Your task to perform on an android device: add a contact Image 0: 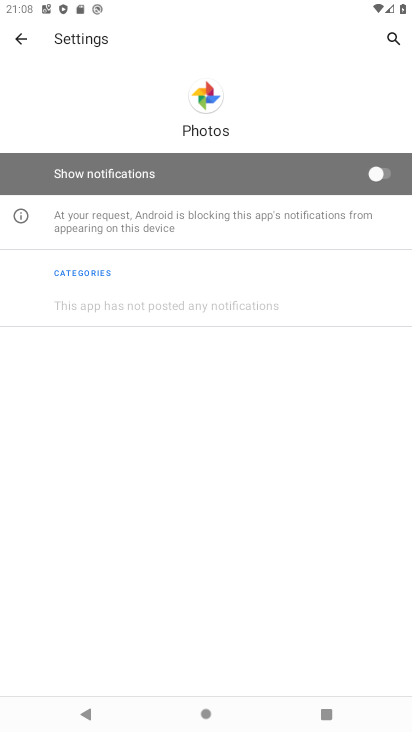
Step 0: press home button
Your task to perform on an android device: add a contact Image 1: 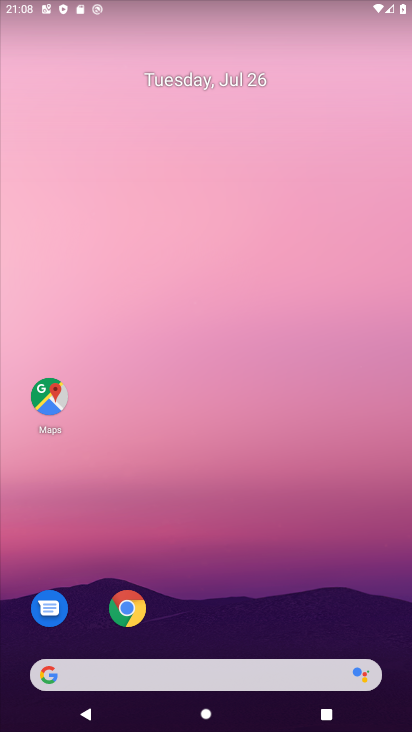
Step 1: drag from (31, 703) to (194, 106)
Your task to perform on an android device: add a contact Image 2: 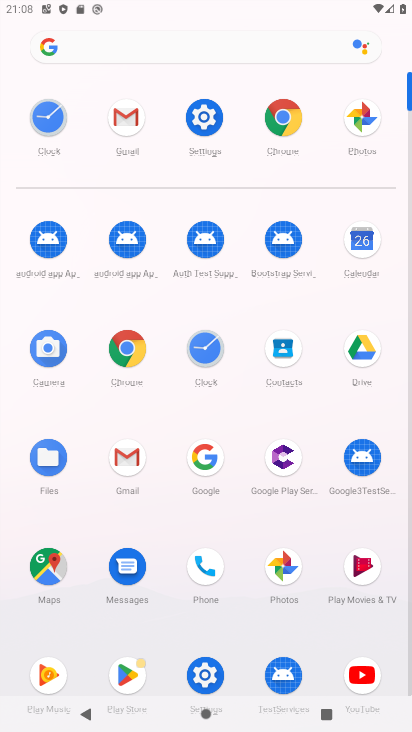
Step 2: click (201, 368)
Your task to perform on an android device: add a contact Image 3: 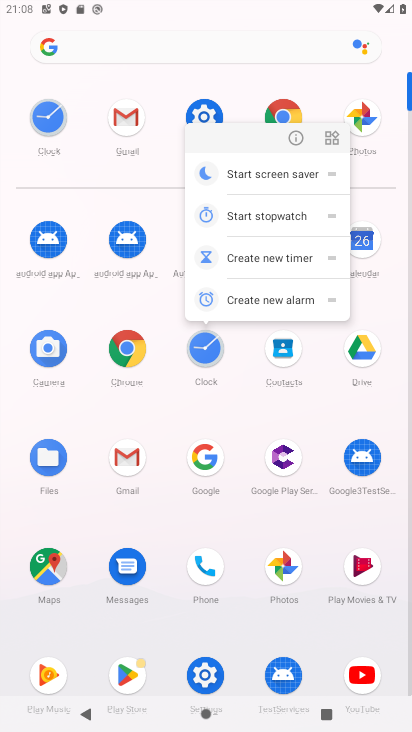
Step 3: click (212, 338)
Your task to perform on an android device: add a contact Image 4: 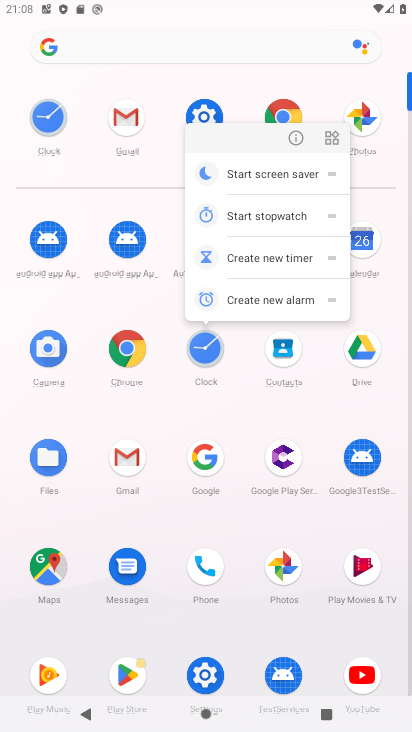
Step 4: click (211, 369)
Your task to perform on an android device: add a contact Image 5: 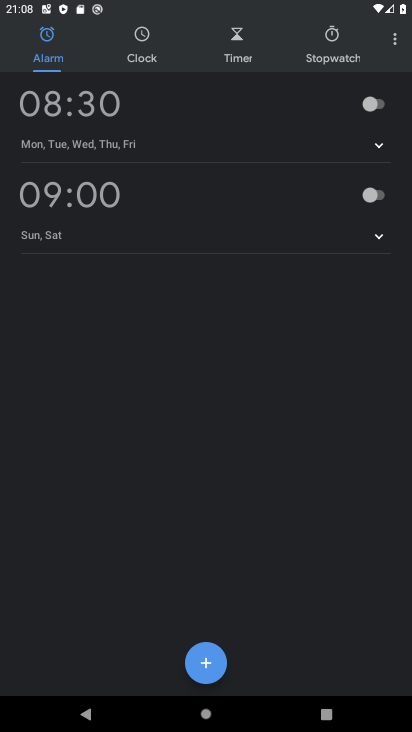
Step 5: press home button
Your task to perform on an android device: add a contact Image 6: 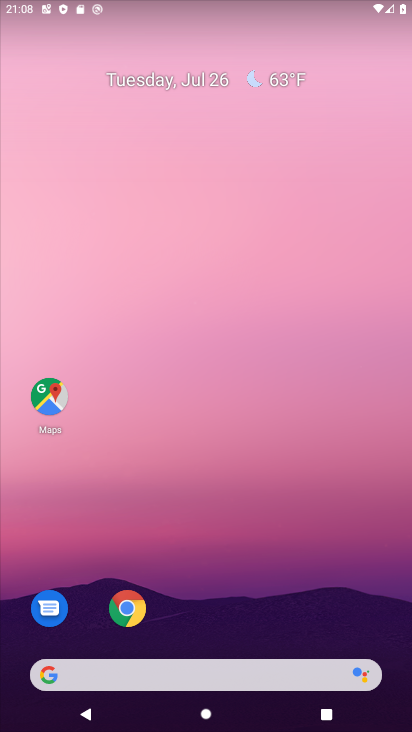
Step 6: drag from (50, 707) to (286, 110)
Your task to perform on an android device: add a contact Image 7: 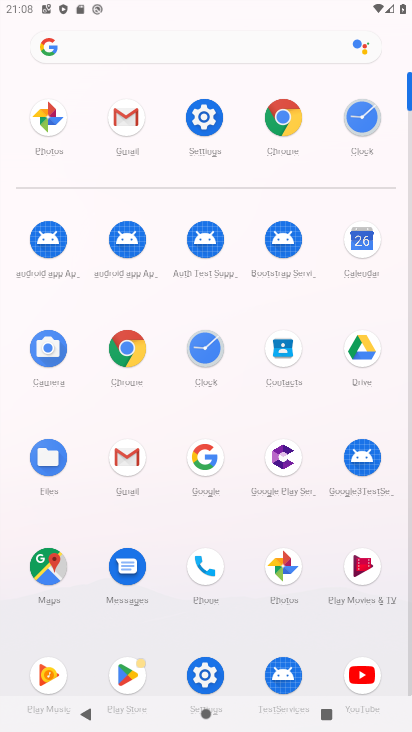
Step 7: click (280, 365)
Your task to perform on an android device: add a contact Image 8: 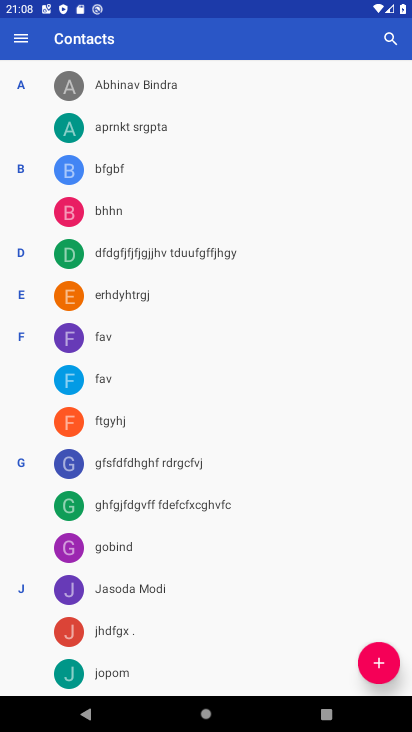
Step 8: click (378, 667)
Your task to perform on an android device: add a contact Image 9: 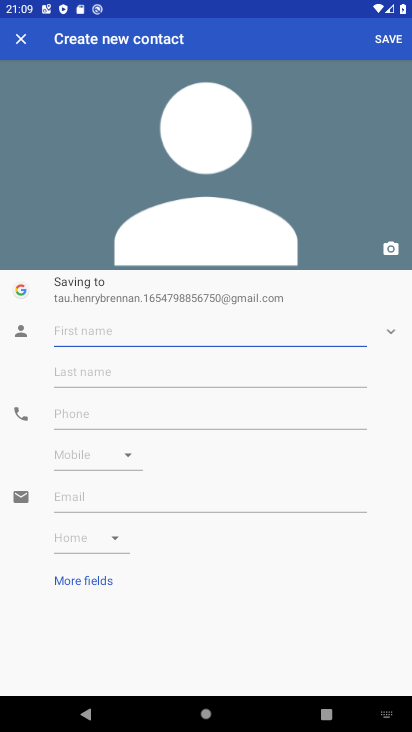
Step 9: type "cgvnjgfb"
Your task to perform on an android device: add a contact Image 10: 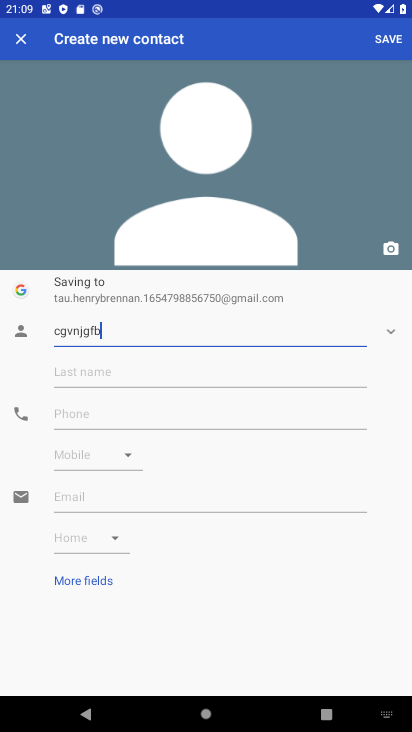
Step 10: type ""
Your task to perform on an android device: add a contact Image 11: 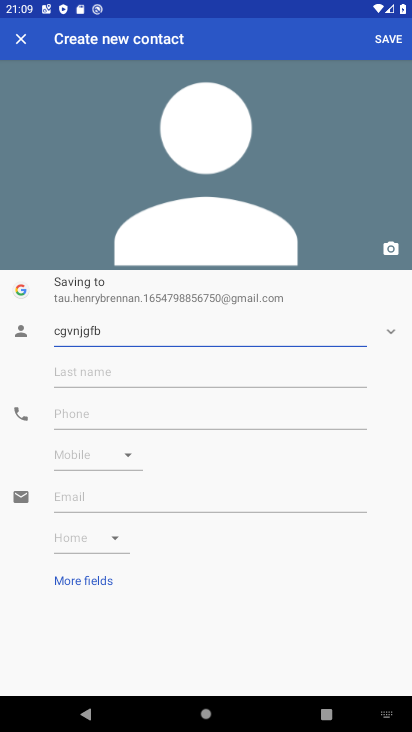
Step 11: click (391, 39)
Your task to perform on an android device: add a contact Image 12: 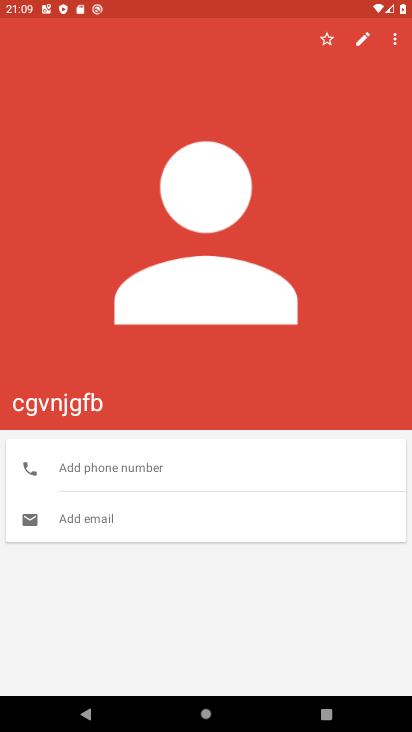
Step 12: task complete